Your task to perform on an android device: Go to location settings Image 0: 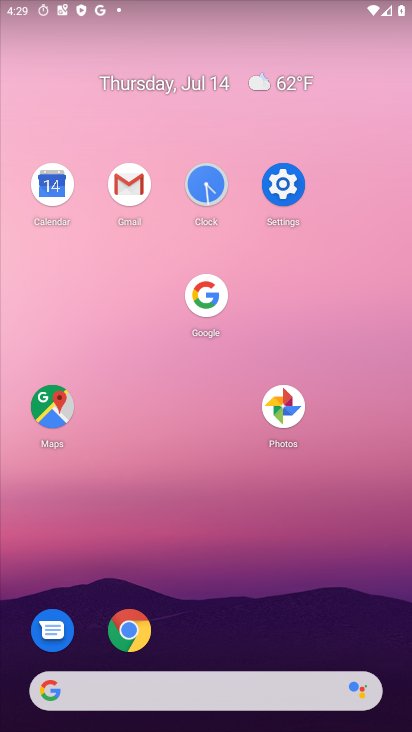
Step 0: click (285, 178)
Your task to perform on an android device: Go to location settings Image 1: 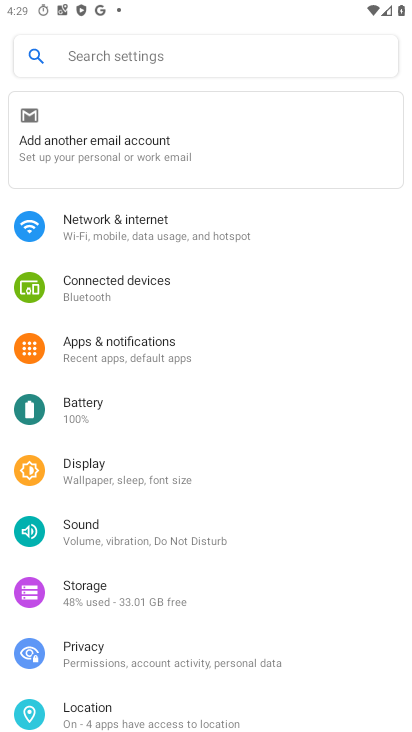
Step 1: click (153, 704)
Your task to perform on an android device: Go to location settings Image 2: 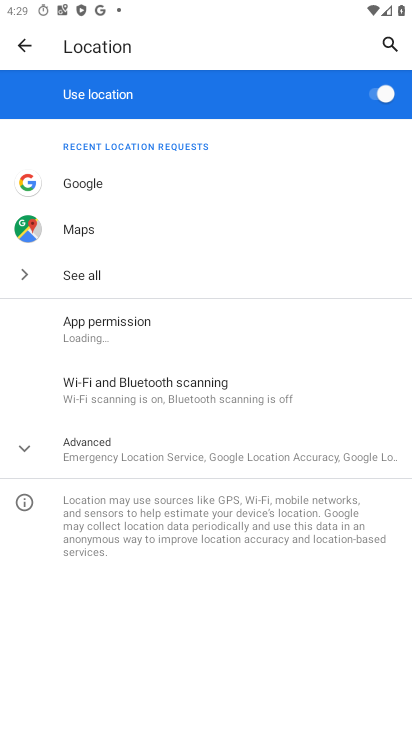
Step 2: task complete